Your task to perform on an android device: Go to notification settings Image 0: 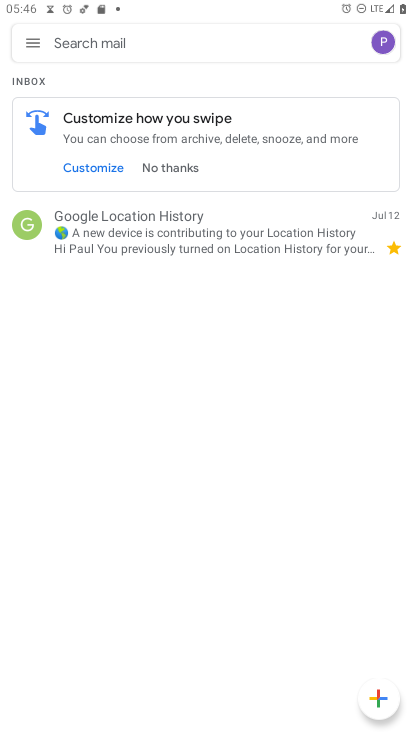
Step 0: press home button
Your task to perform on an android device: Go to notification settings Image 1: 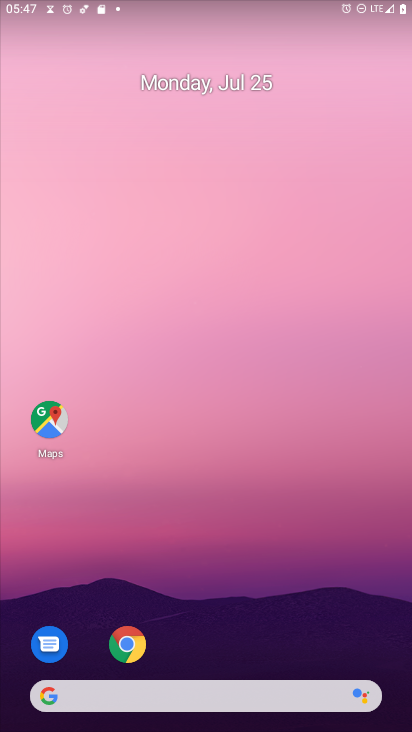
Step 1: drag from (226, 639) to (302, 244)
Your task to perform on an android device: Go to notification settings Image 2: 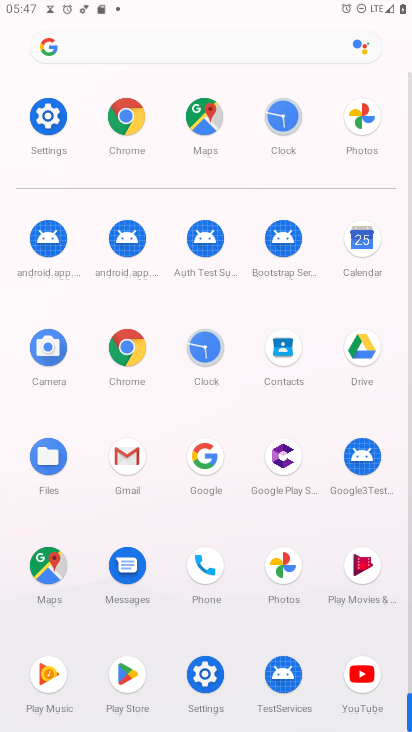
Step 2: click (50, 127)
Your task to perform on an android device: Go to notification settings Image 3: 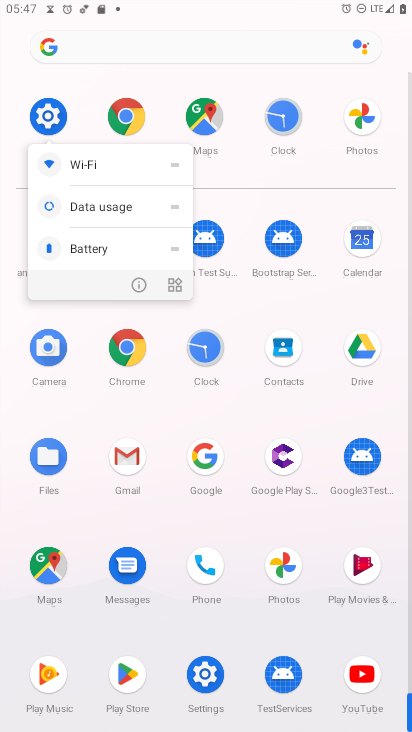
Step 3: click (64, 104)
Your task to perform on an android device: Go to notification settings Image 4: 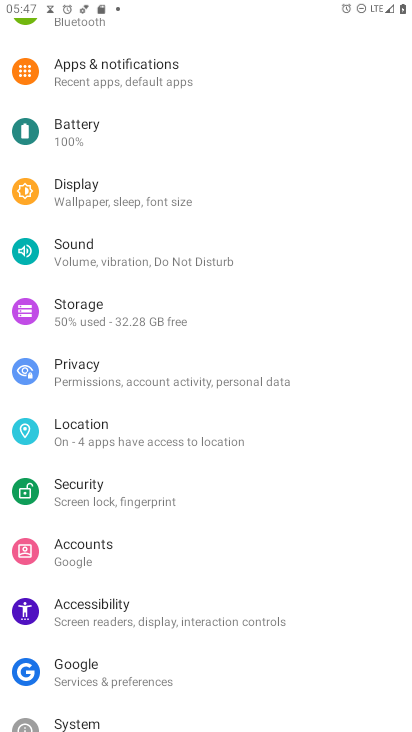
Step 4: click (97, 65)
Your task to perform on an android device: Go to notification settings Image 5: 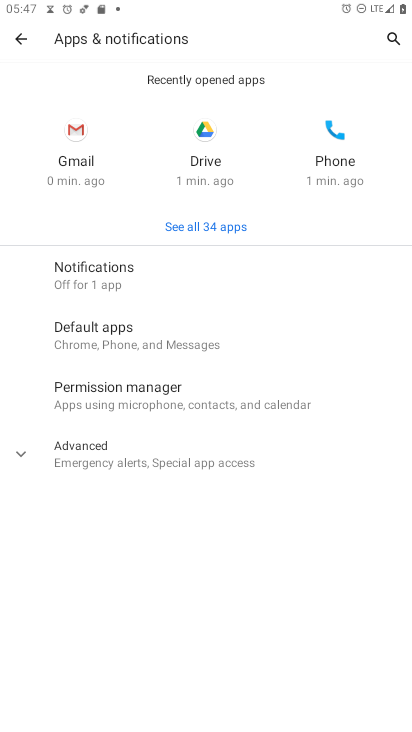
Step 5: click (80, 264)
Your task to perform on an android device: Go to notification settings Image 6: 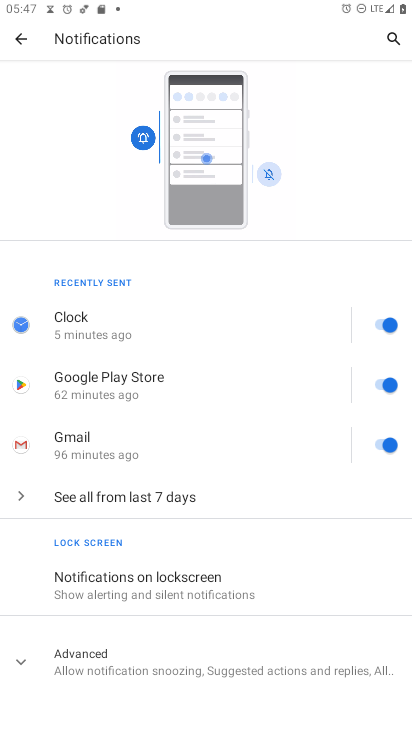
Step 6: task complete